Your task to perform on an android device: set default search engine in the chrome app Image 0: 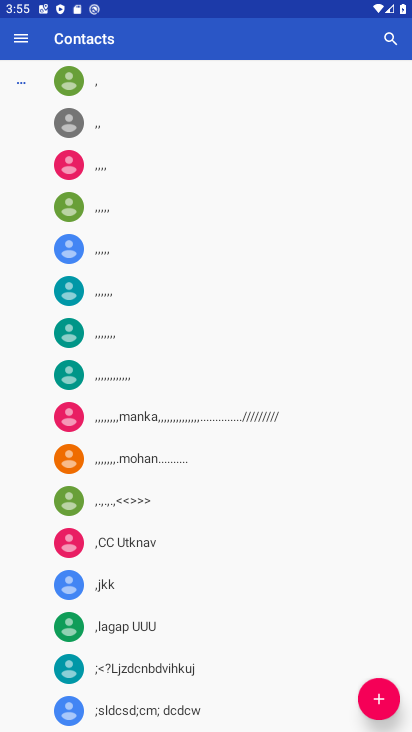
Step 0: press back button
Your task to perform on an android device: set default search engine in the chrome app Image 1: 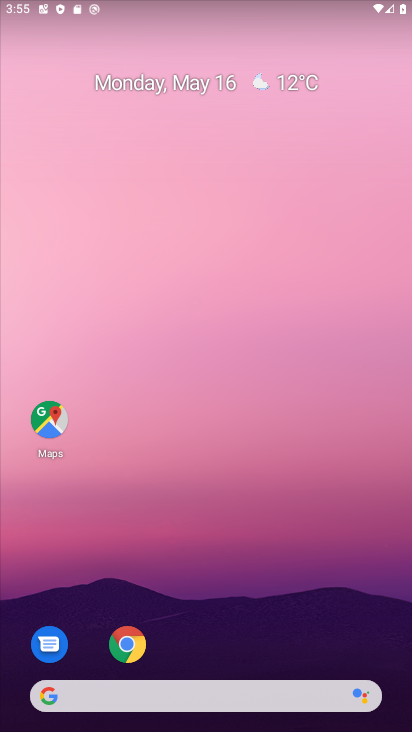
Step 1: click (131, 642)
Your task to perform on an android device: set default search engine in the chrome app Image 2: 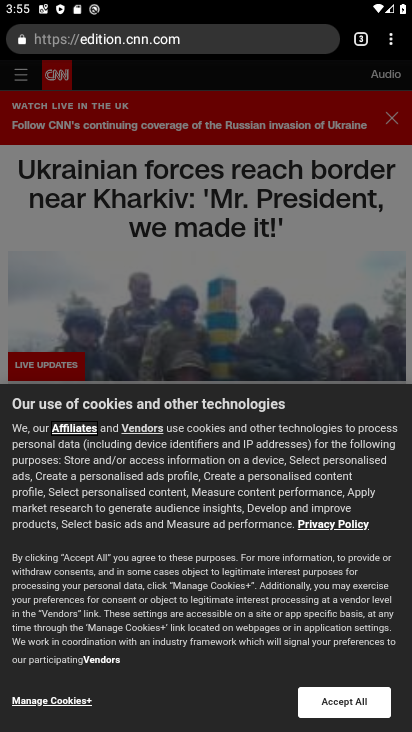
Step 2: drag from (387, 43) to (261, 473)
Your task to perform on an android device: set default search engine in the chrome app Image 3: 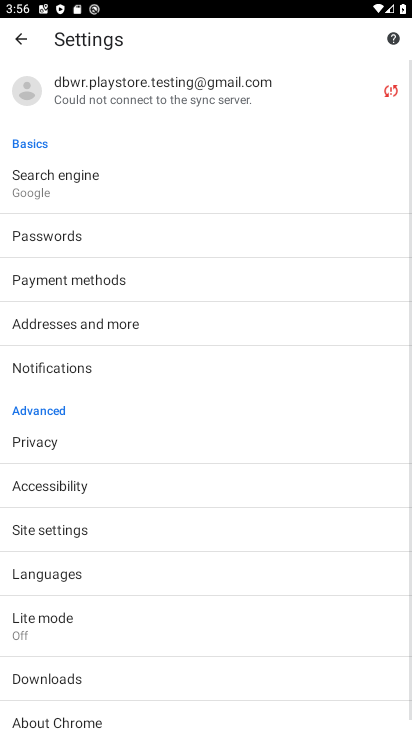
Step 3: click (80, 163)
Your task to perform on an android device: set default search engine in the chrome app Image 4: 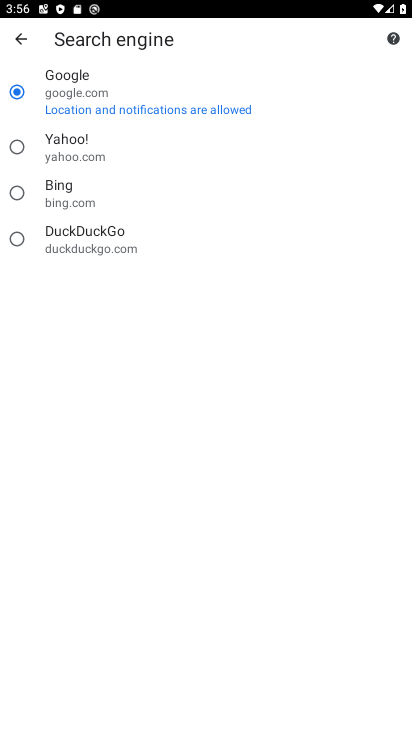
Step 4: click (65, 142)
Your task to perform on an android device: set default search engine in the chrome app Image 5: 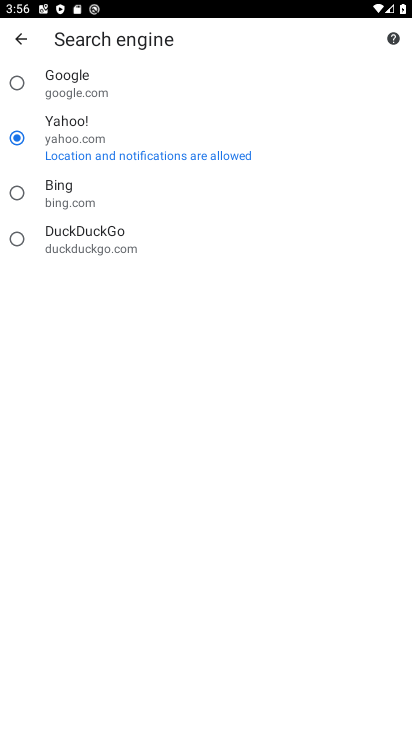
Step 5: task complete